Your task to perform on an android device: see tabs open on other devices in the chrome app Image 0: 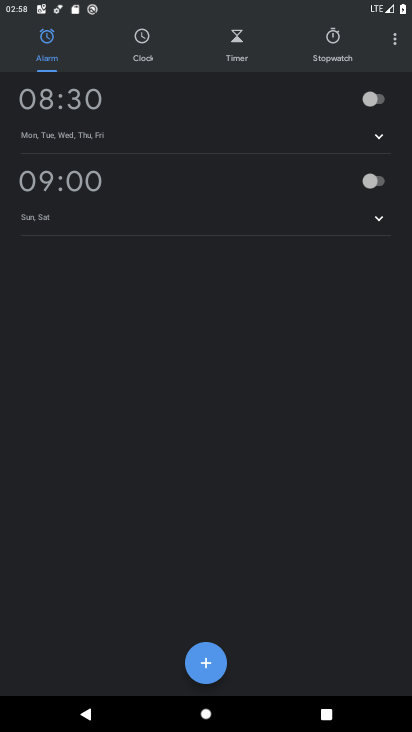
Step 0: press home button
Your task to perform on an android device: see tabs open on other devices in the chrome app Image 1: 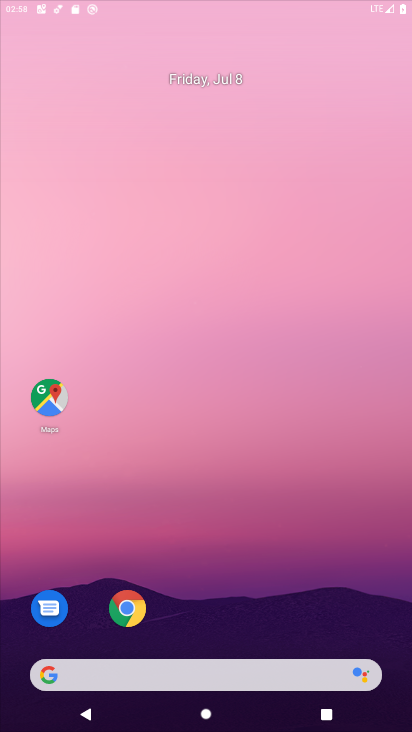
Step 1: drag from (279, 569) to (211, 167)
Your task to perform on an android device: see tabs open on other devices in the chrome app Image 2: 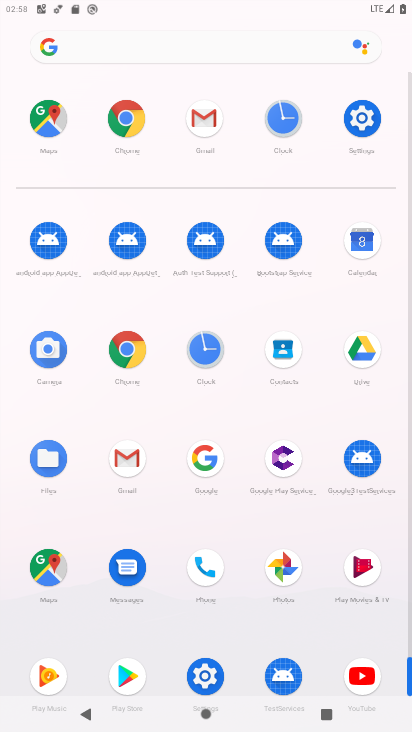
Step 2: click (118, 101)
Your task to perform on an android device: see tabs open on other devices in the chrome app Image 3: 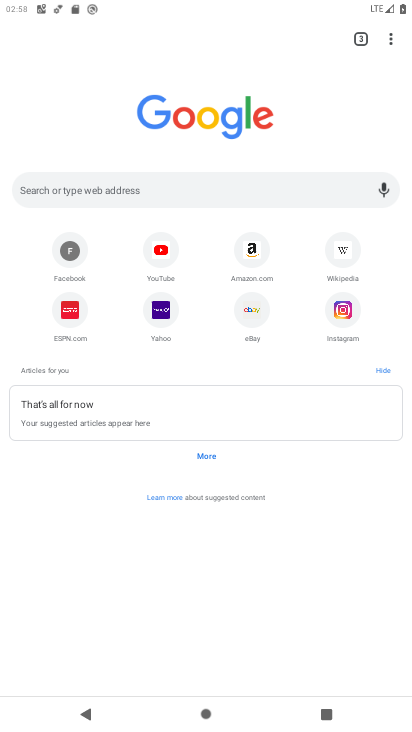
Step 3: click (385, 45)
Your task to perform on an android device: see tabs open on other devices in the chrome app Image 4: 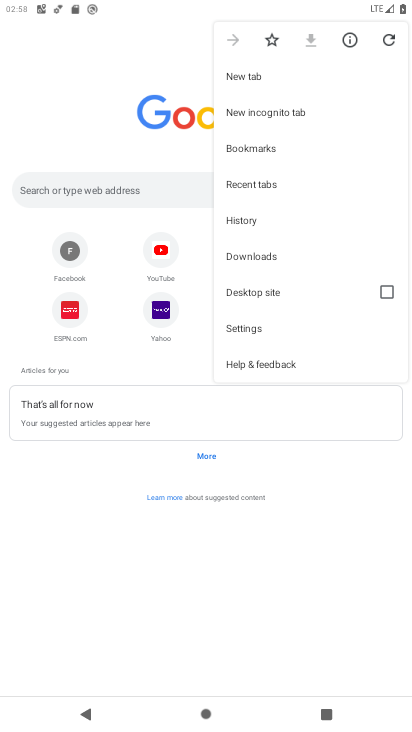
Step 4: click (257, 215)
Your task to perform on an android device: see tabs open on other devices in the chrome app Image 5: 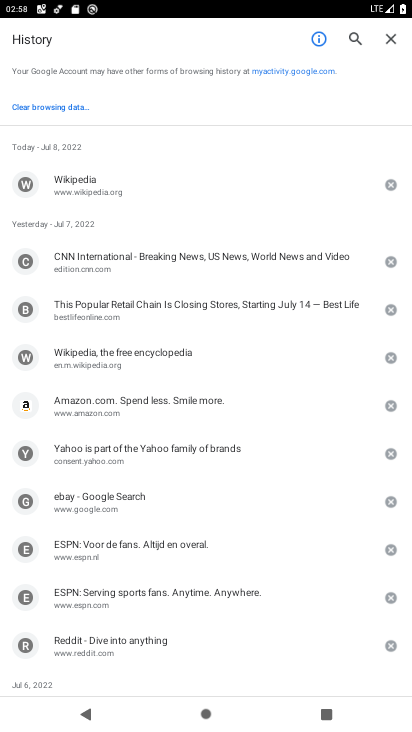
Step 5: task complete